Your task to perform on an android device: change alarm snooze length Image 0: 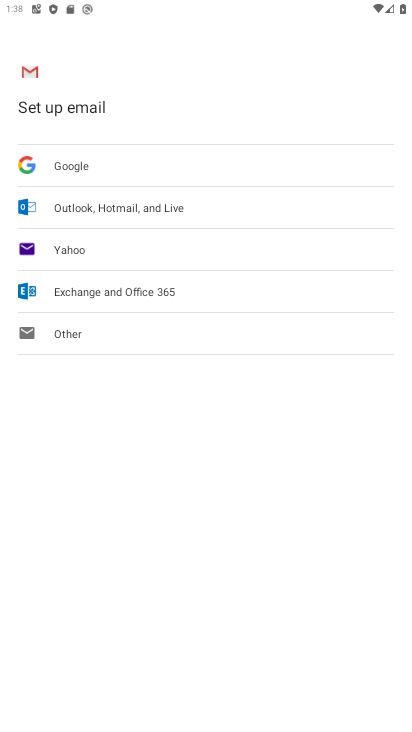
Step 0: press back button
Your task to perform on an android device: change alarm snooze length Image 1: 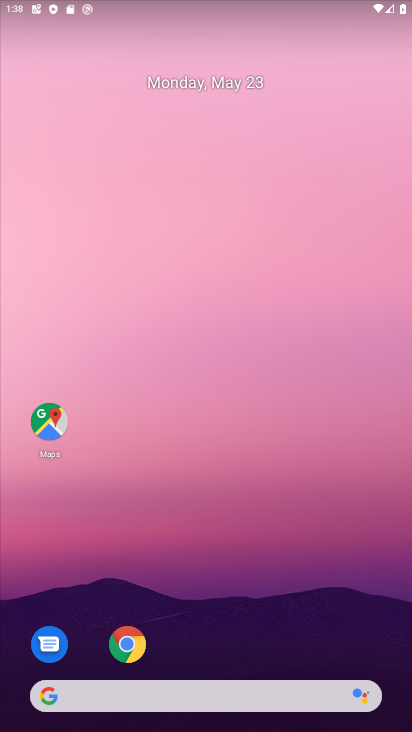
Step 1: drag from (211, 548) to (235, 11)
Your task to perform on an android device: change alarm snooze length Image 2: 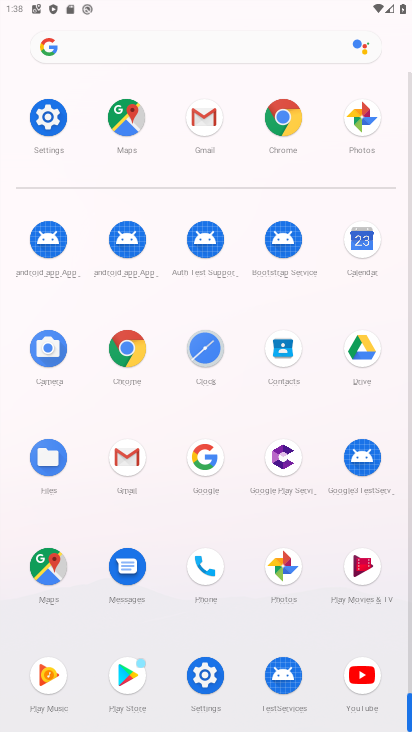
Step 2: click (203, 345)
Your task to perform on an android device: change alarm snooze length Image 3: 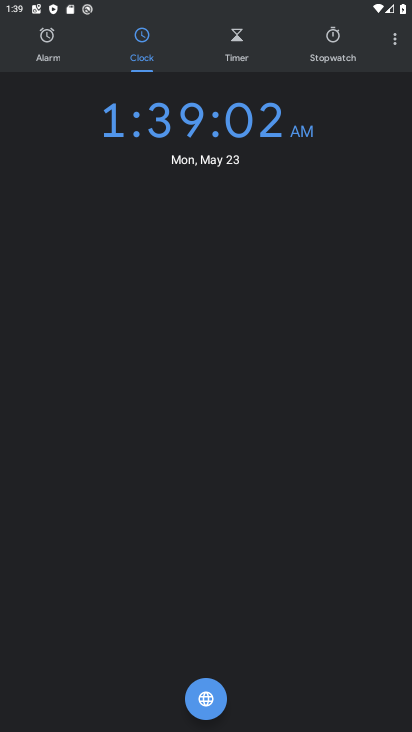
Step 3: drag from (397, 38) to (357, 75)
Your task to perform on an android device: change alarm snooze length Image 4: 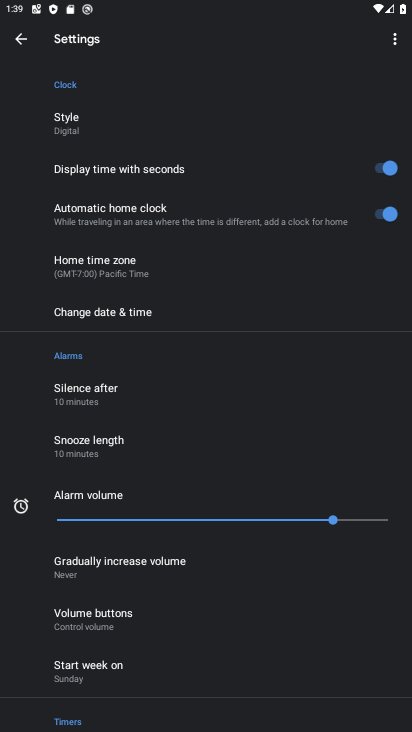
Step 4: click (126, 441)
Your task to perform on an android device: change alarm snooze length Image 5: 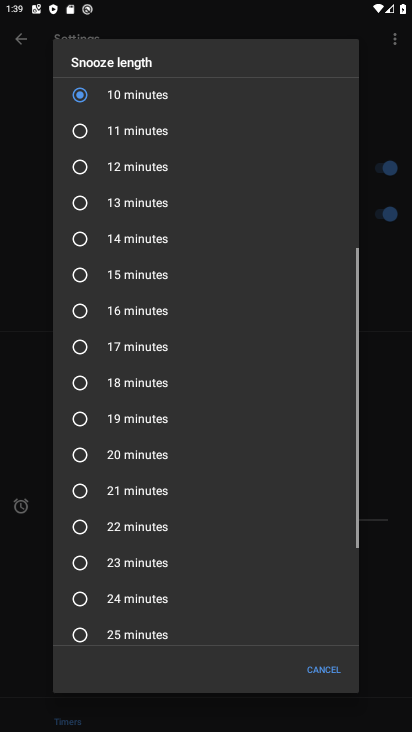
Step 5: click (120, 133)
Your task to perform on an android device: change alarm snooze length Image 6: 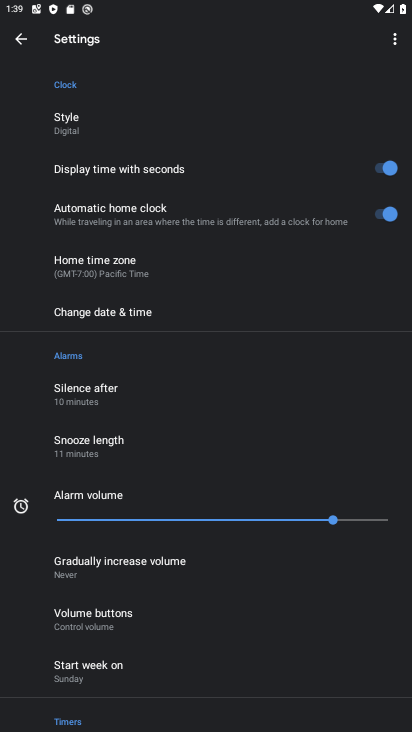
Step 6: task complete